Your task to perform on an android device: Go to wifi settings Image 0: 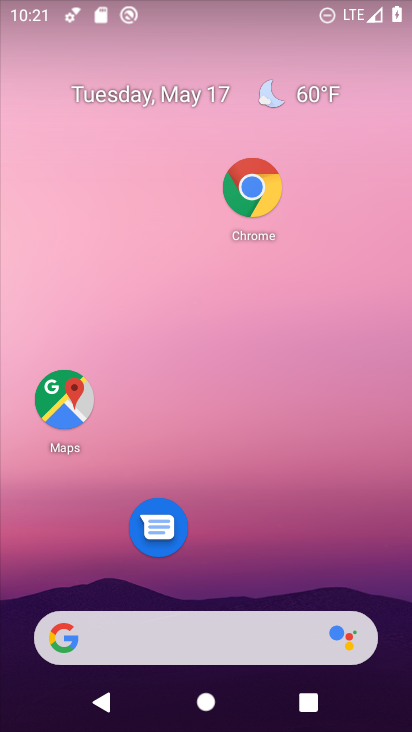
Step 0: drag from (249, 564) to (251, 41)
Your task to perform on an android device: Go to wifi settings Image 1: 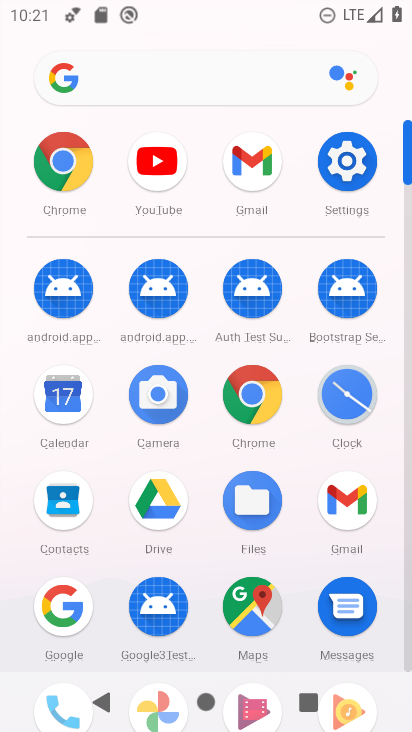
Step 1: click (330, 172)
Your task to perform on an android device: Go to wifi settings Image 2: 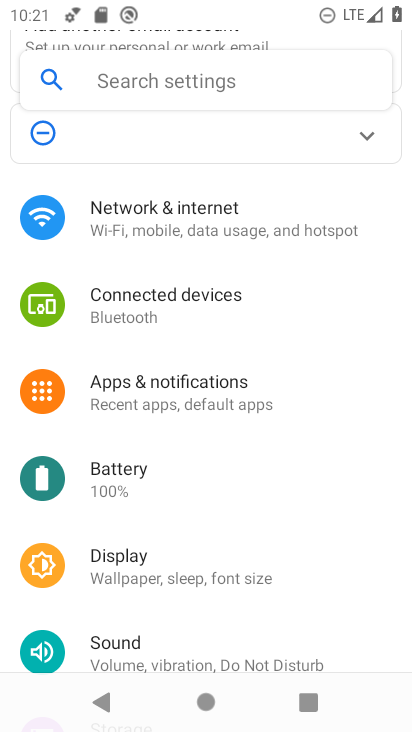
Step 2: click (219, 218)
Your task to perform on an android device: Go to wifi settings Image 3: 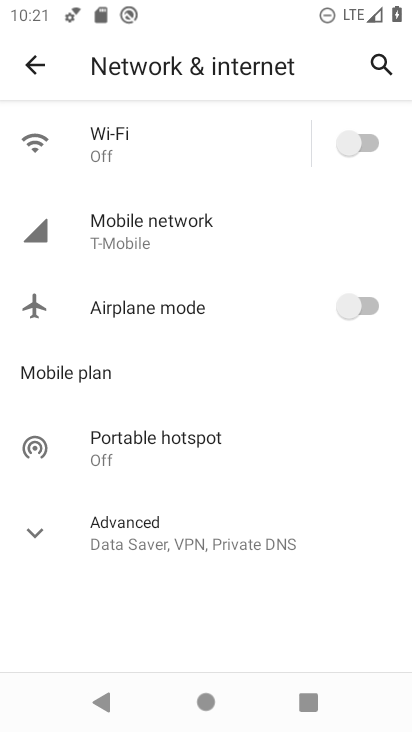
Step 3: click (358, 150)
Your task to perform on an android device: Go to wifi settings Image 4: 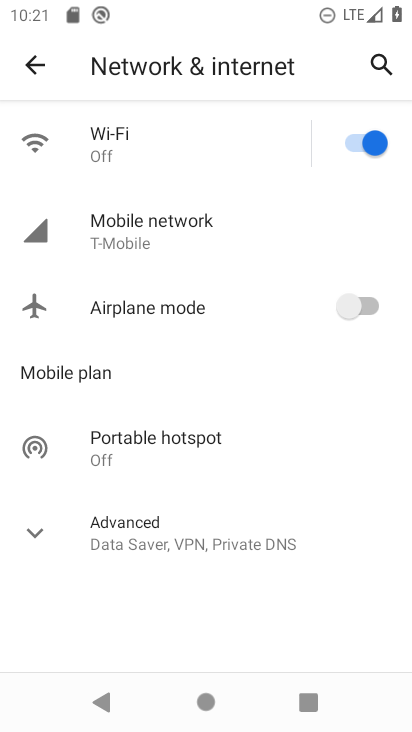
Step 4: click (248, 150)
Your task to perform on an android device: Go to wifi settings Image 5: 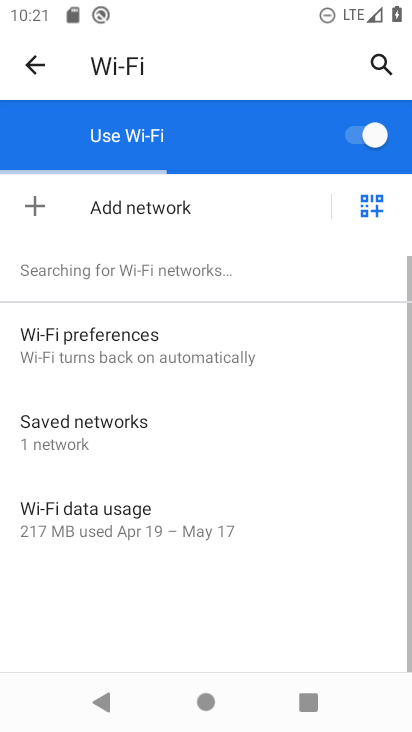
Step 5: task complete